Your task to perform on an android device: Open Reddit.com Image 0: 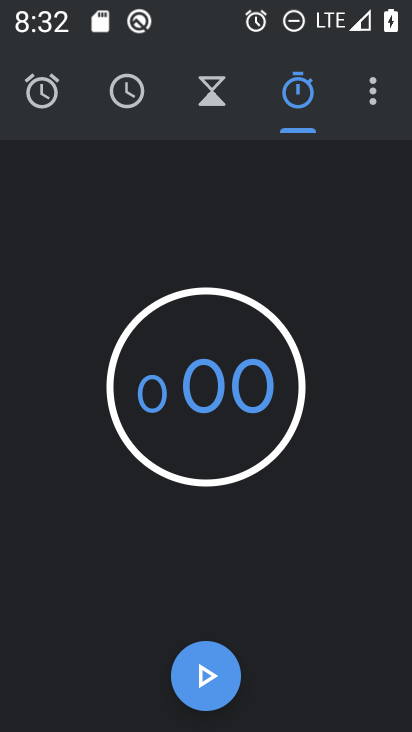
Step 0: press home button
Your task to perform on an android device: Open Reddit.com Image 1: 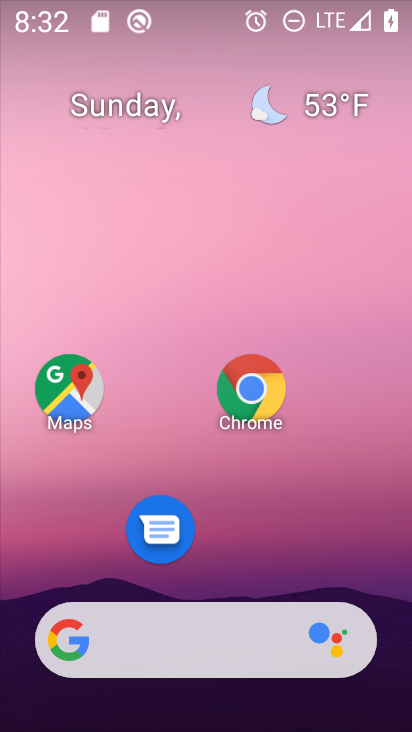
Step 1: click (249, 378)
Your task to perform on an android device: Open Reddit.com Image 2: 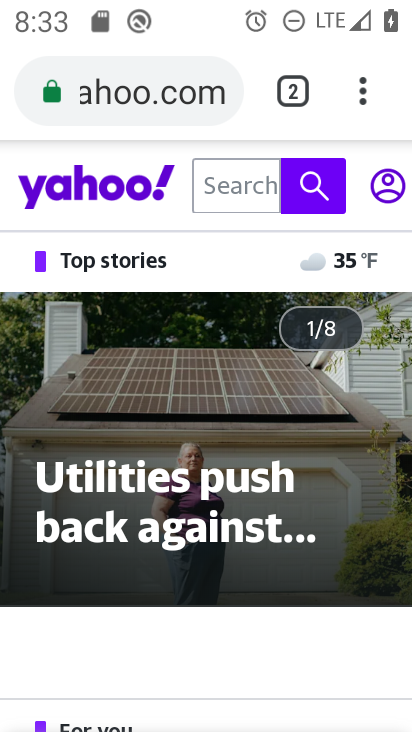
Step 2: click (140, 93)
Your task to perform on an android device: Open Reddit.com Image 3: 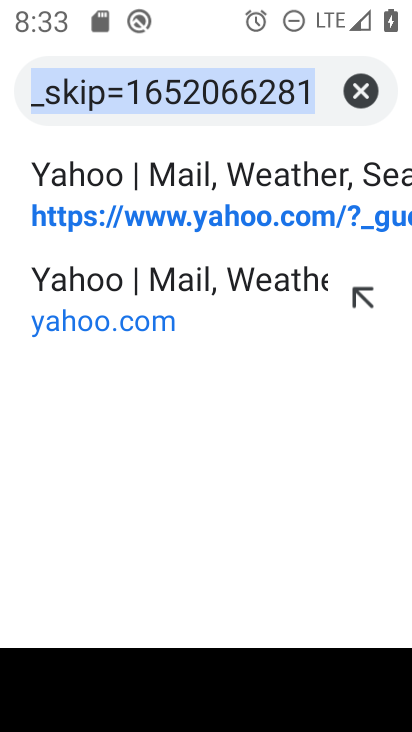
Step 3: type "Reddit.com"
Your task to perform on an android device: Open Reddit.com Image 4: 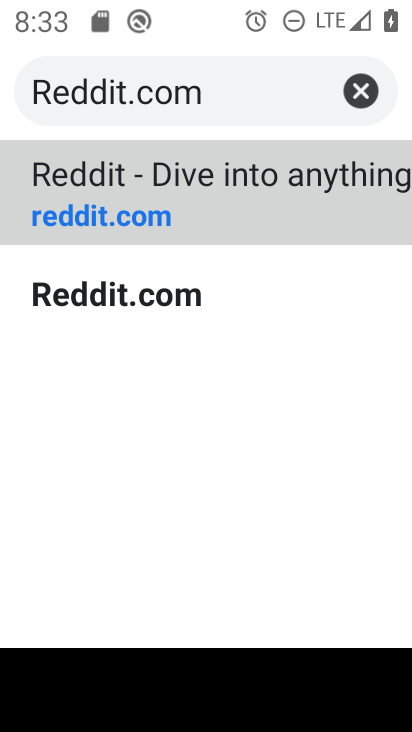
Step 4: click (168, 305)
Your task to perform on an android device: Open Reddit.com Image 5: 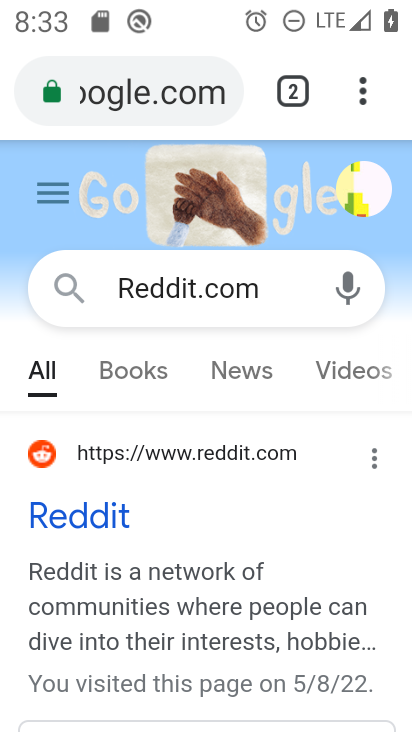
Step 5: task complete